Your task to perform on an android device: open device folders in google photos Image 0: 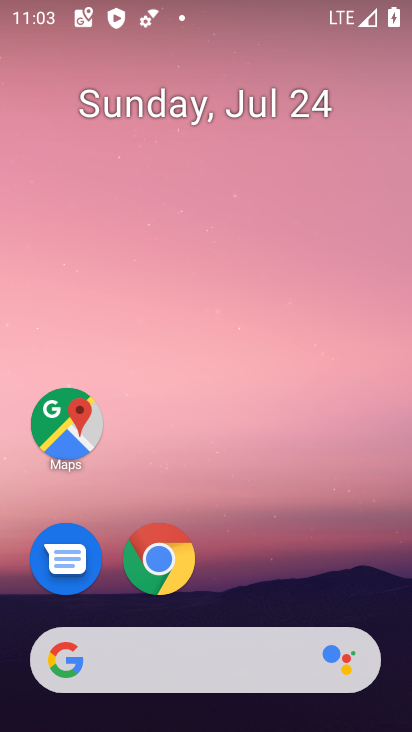
Step 0: drag from (240, 548) to (306, 11)
Your task to perform on an android device: open device folders in google photos Image 1: 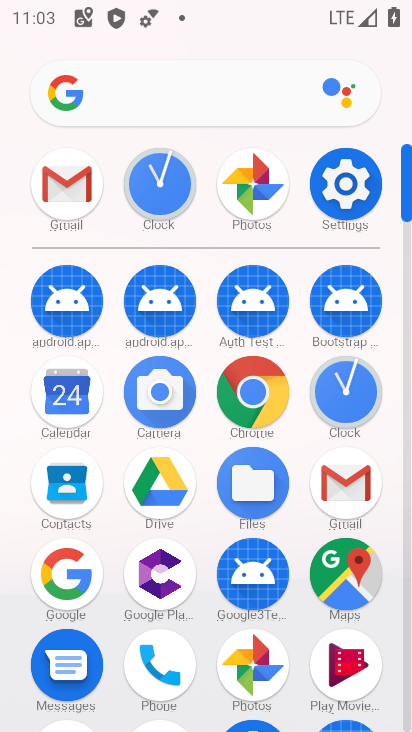
Step 1: click (250, 656)
Your task to perform on an android device: open device folders in google photos Image 2: 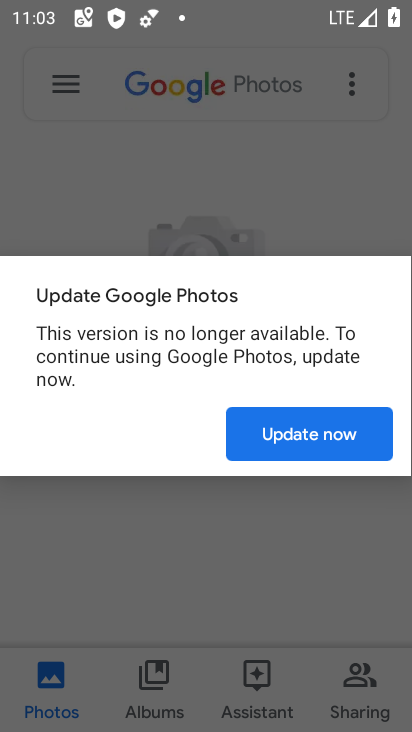
Step 2: click (304, 442)
Your task to perform on an android device: open device folders in google photos Image 3: 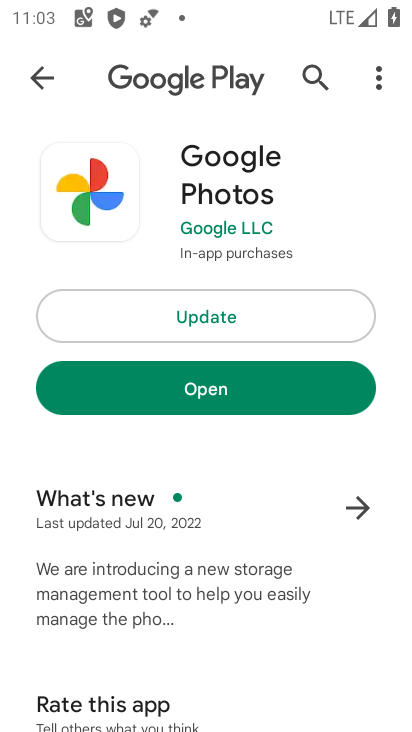
Step 3: click (40, 67)
Your task to perform on an android device: open device folders in google photos Image 4: 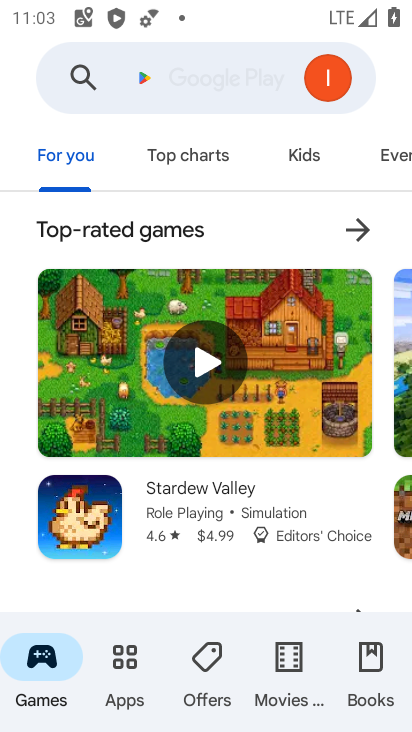
Step 4: press back button
Your task to perform on an android device: open device folders in google photos Image 5: 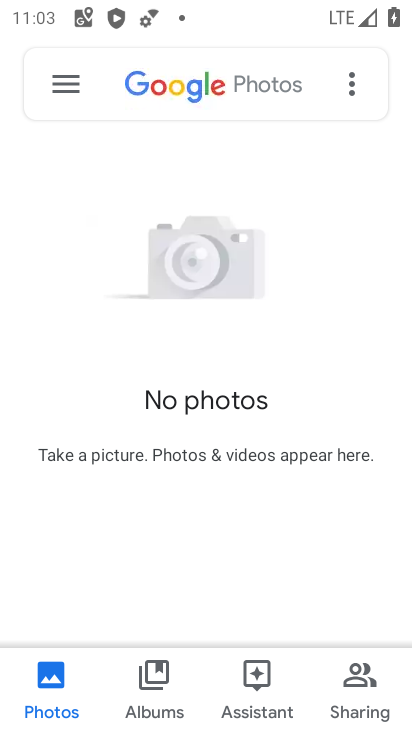
Step 5: click (57, 76)
Your task to perform on an android device: open device folders in google photos Image 6: 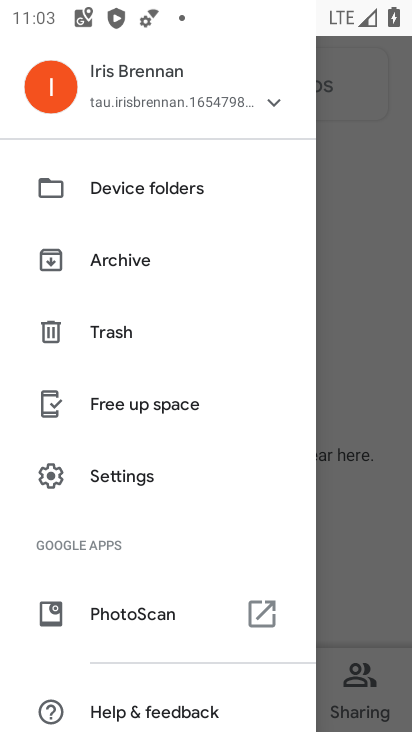
Step 6: click (175, 183)
Your task to perform on an android device: open device folders in google photos Image 7: 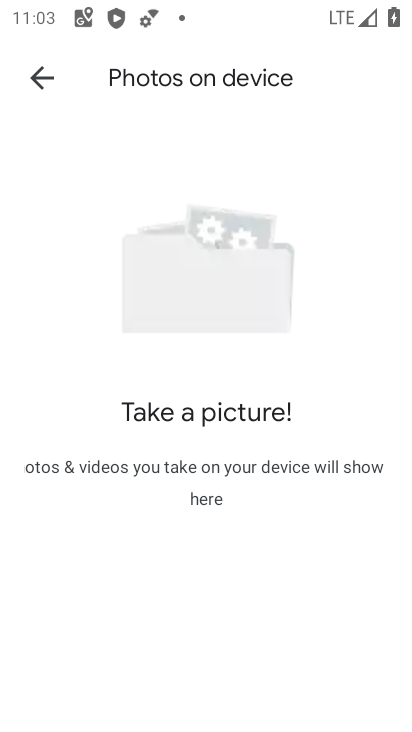
Step 7: task complete